Your task to perform on an android device: Open calendar and show me the first week of next month Image 0: 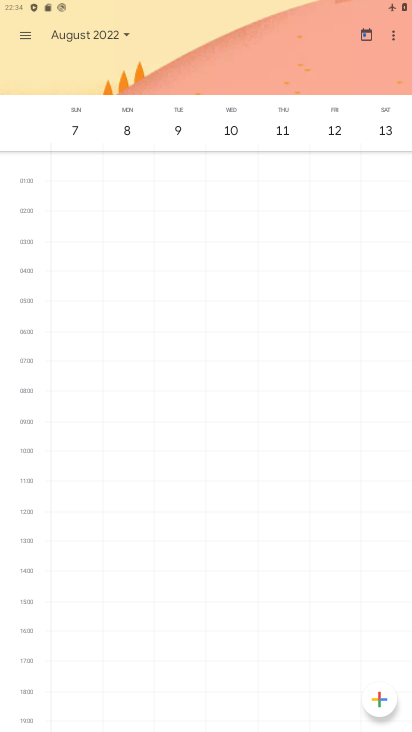
Step 0: press home button
Your task to perform on an android device: Open calendar and show me the first week of next month Image 1: 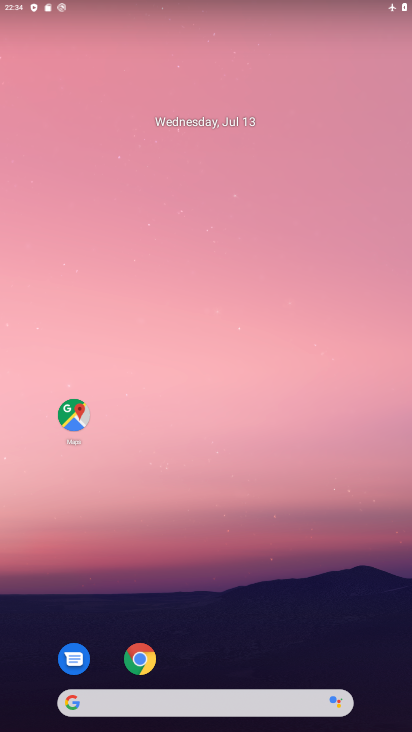
Step 1: drag from (386, 643) to (298, 19)
Your task to perform on an android device: Open calendar and show me the first week of next month Image 2: 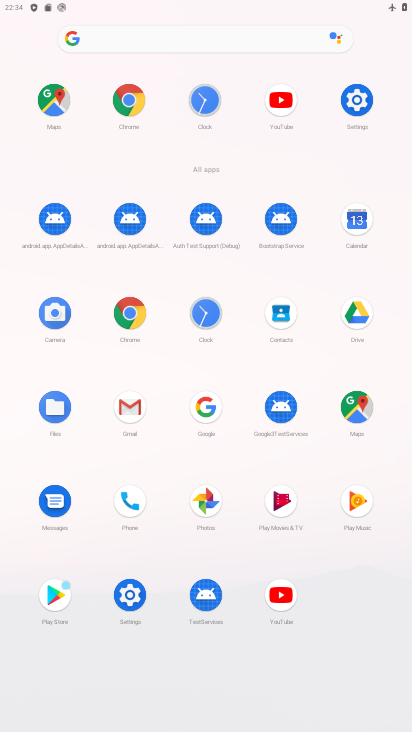
Step 2: click (357, 223)
Your task to perform on an android device: Open calendar and show me the first week of next month Image 3: 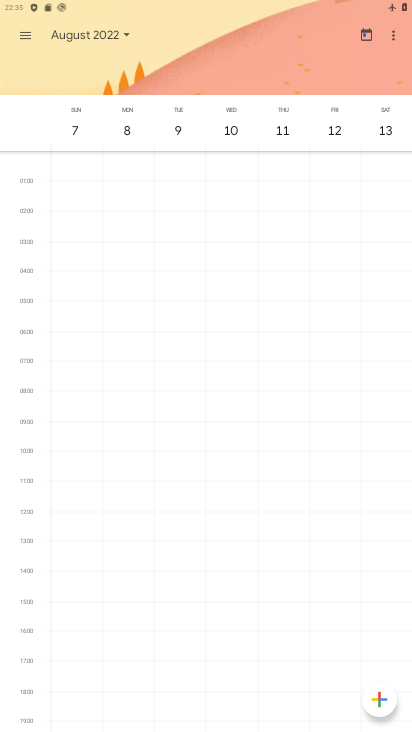
Step 3: click (125, 31)
Your task to perform on an android device: Open calendar and show me the first week of next month Image 4: 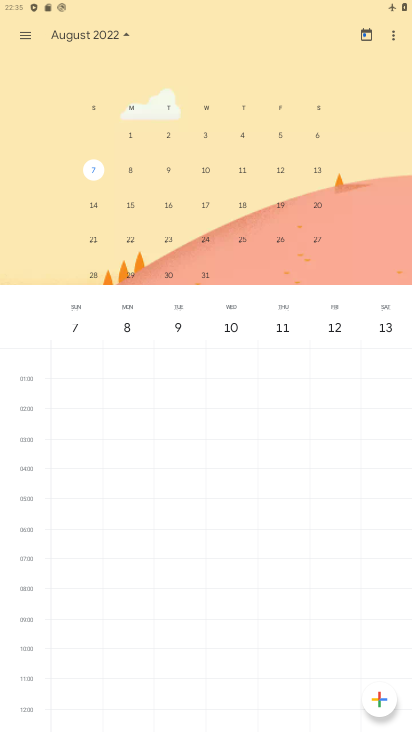
Step 4: task complete